Your task to perform on an android device: add a contact Image 0: 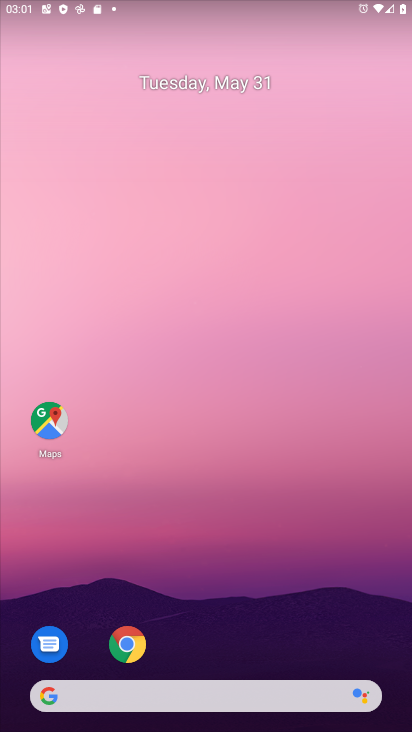
Step 0: drag from (261, 560) to (292, 181)
Your task to perform on an android device: add a contact Image 1: 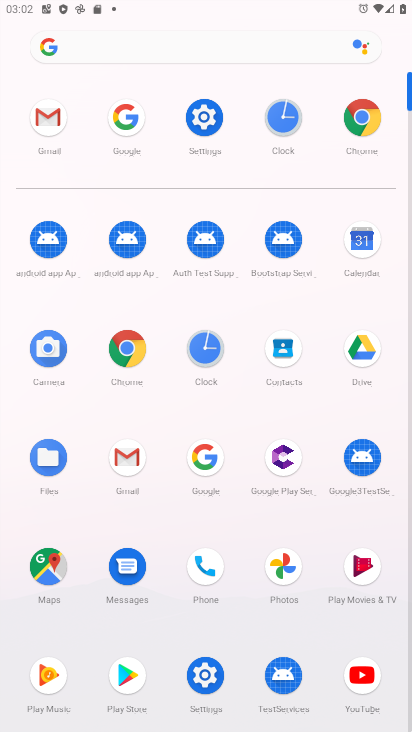
Step 1: click (291, 340)
Your task to perform on an android device: add a contact Image 2: 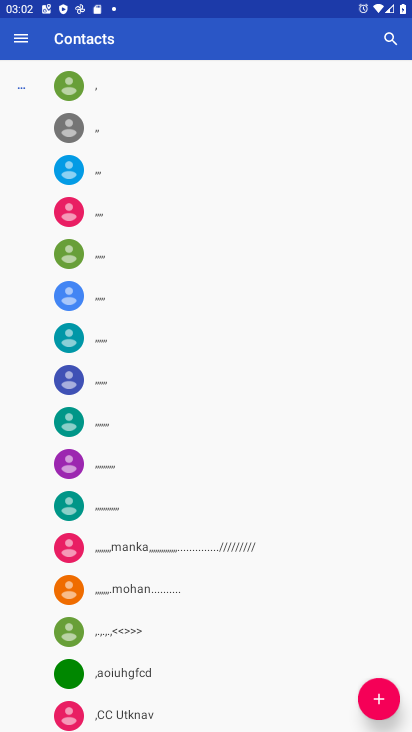
Step 2: click (383, 700)
Your task to perform on an android device: add a contact Image 3: 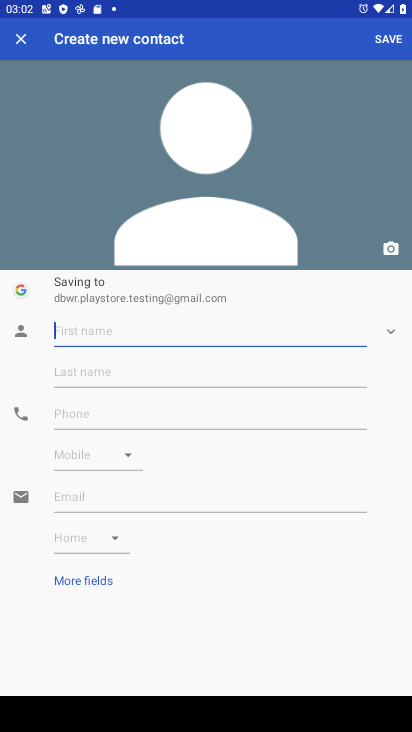
Step 3: type "dollar"
Your task to perform on an android device: add a contact Image 4: 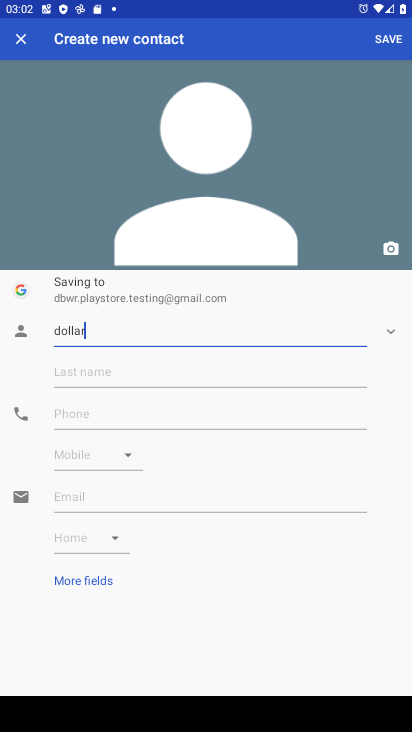
Step 4: click (395, 41)
Your task to perform on an android device: add a contact Image 5: 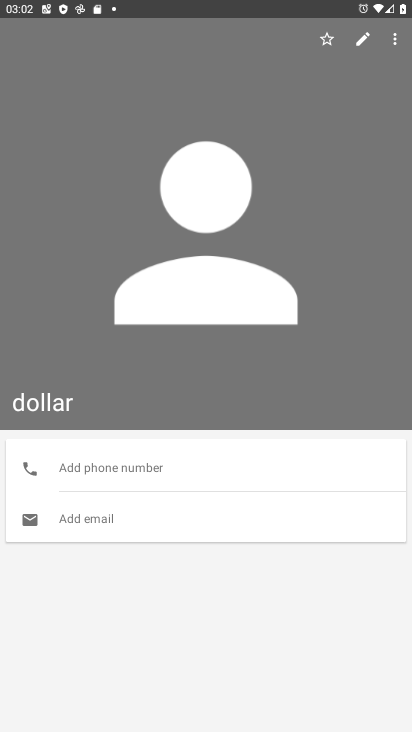
Step 5: task complete